Your task to perform on an android device: Go to internet settings Image 0: 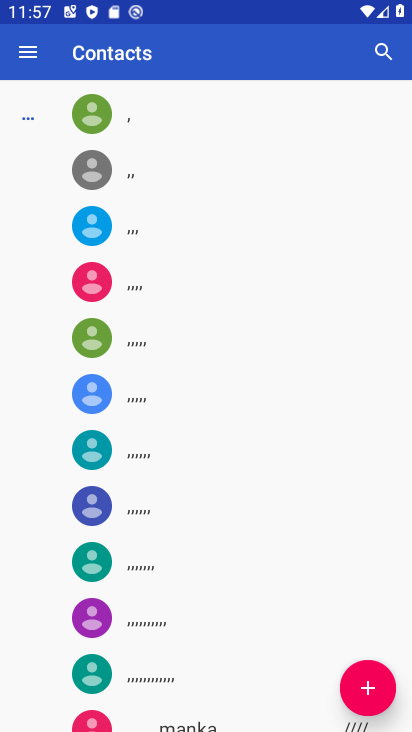
Step 0: press home button
Your task to perform on an android device: Go to internet settings Image 1: 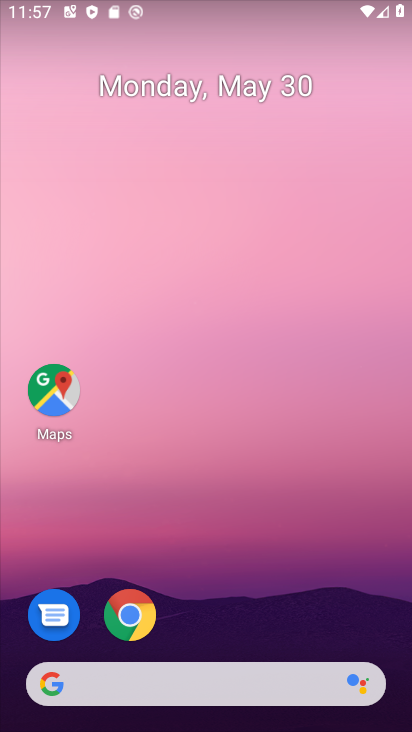
Step 1: drag from (362, 620) to (367, 169)
Your task to perform on an android device: Go to internet settings Image 2: 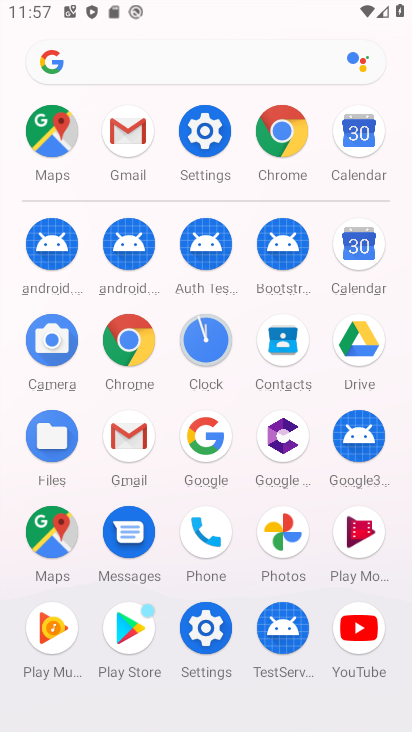
Step 2: click (225, 625)
Your task to perform on an android device: Go to internet settings Image 3: 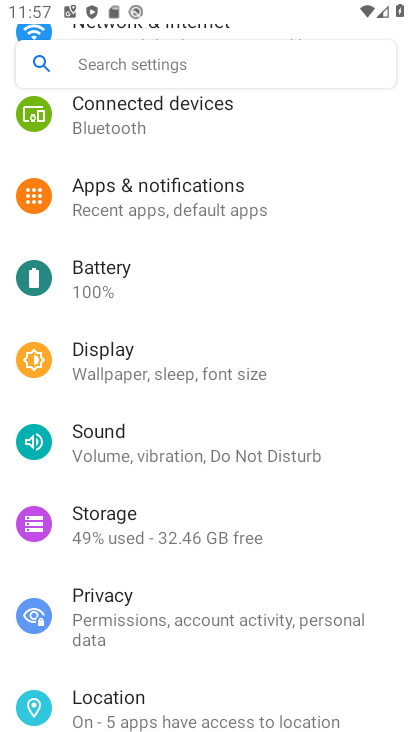
Step 3: drag from (331, 611) to (332, 502)
Your task to perform on an android device: Go to internet settings Image 4: 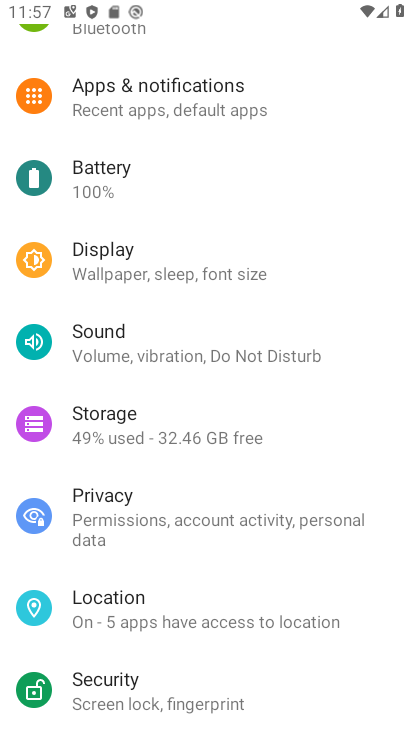
Step 4: drag from (364, 621) to (367, 452)
Your task to perform on an android device: Go to internet settings Image 5: 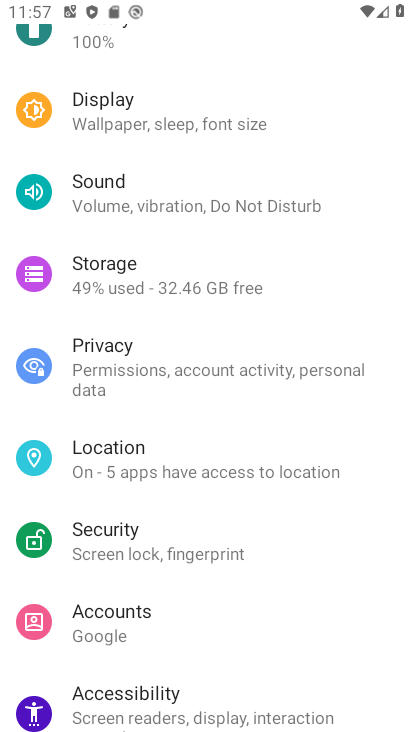
Step 5: drag from (363, 608) to (366, 414)
Your task to perform on an android device: Go to internet settings Image 6: 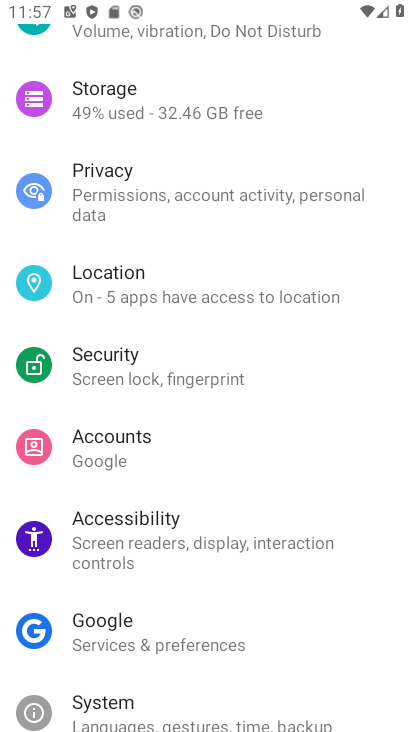
Step 6: drag from (369, 624) to (368, 465)
Your task to perform on an android device: Go to internet settings Image 7: 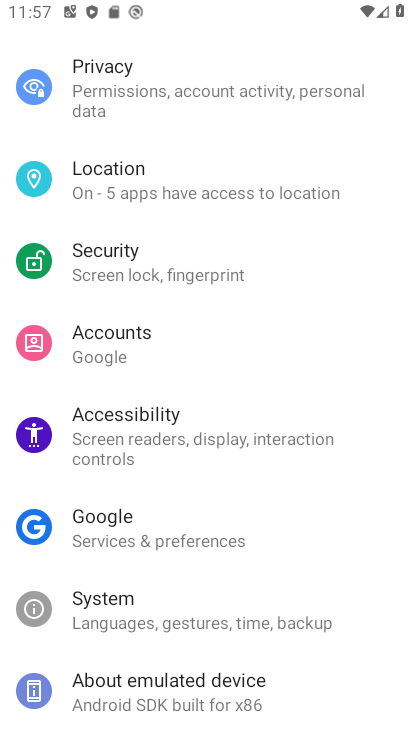
Step 7: drag from (362, 338) to (352, 502)
Your task to perform on an android device: Go to internet settings Image 8: 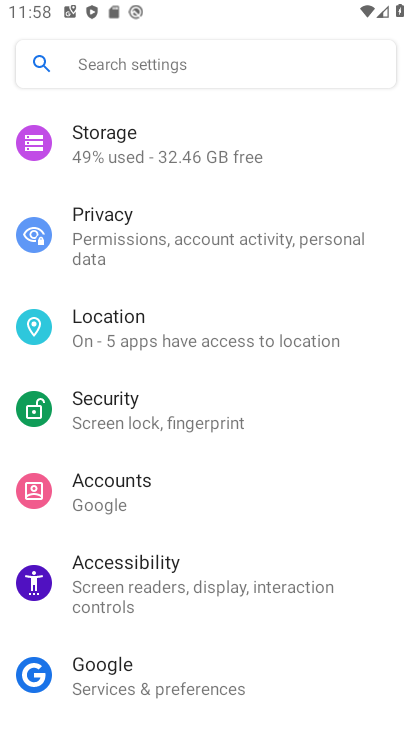
Step 8: drag from (350, 310) to (349, 464)
Your task to perform on an android device: Go to internet settings Image 9: 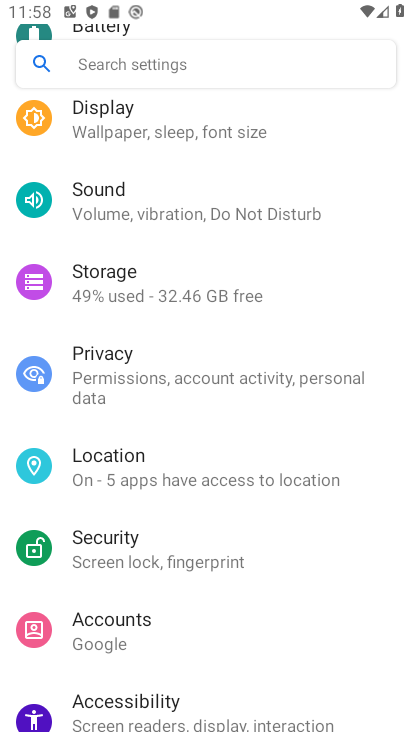
Step 9: drag from (348, 289) to (347, 405)
Your task to perform on an android device: Go to internet settings Image 10: 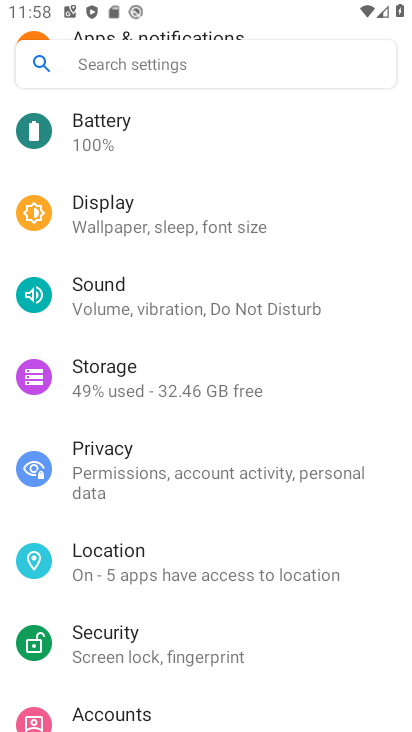
Step 10: drag from (358, 256) to (362, 362)
Your task to perform on an android device: Go to internet settings Image 11: 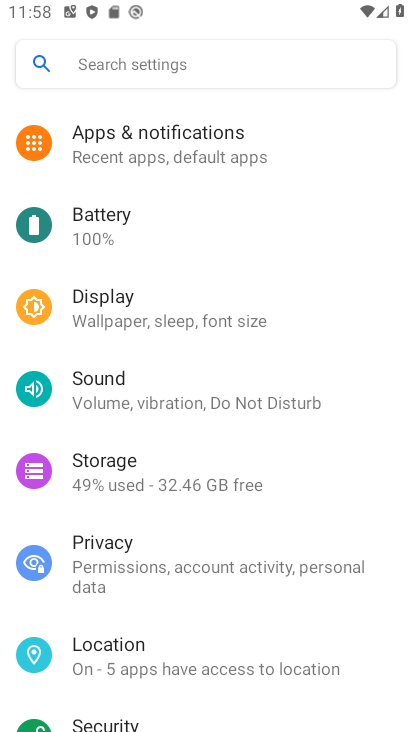
Step 11: drag from (340, 227) to (347, 333)
Your task to perform on an android device: Go to internet settings Image 12: 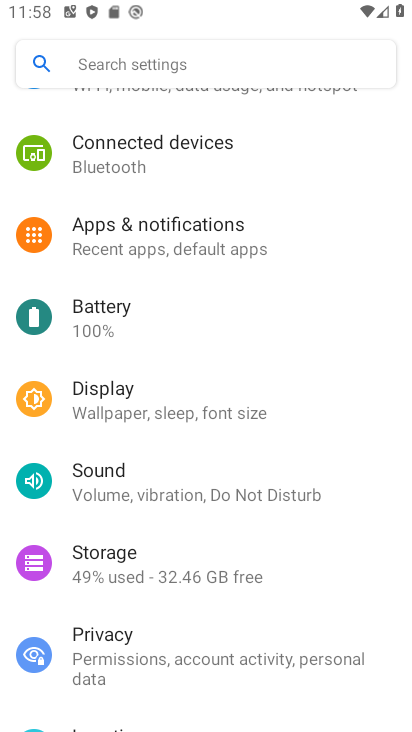
Step 12: drag from (359, 216) to (361, 368)
Your task to perform on an android device: Go to internet settings Image 13: 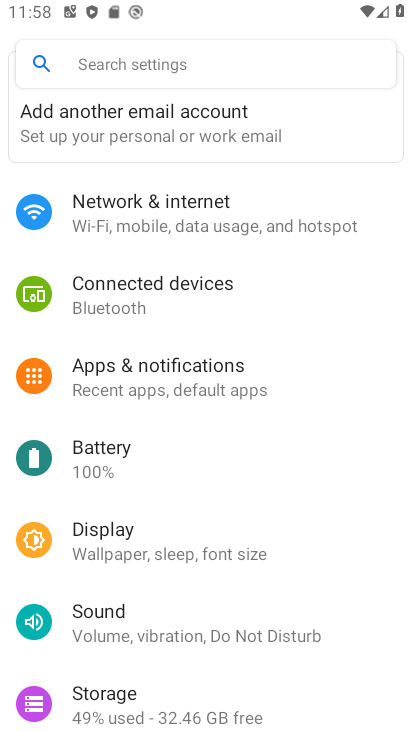
Step 13: click (307, 224)
Your task to perform on an android device: Go to internet settings Image 14: 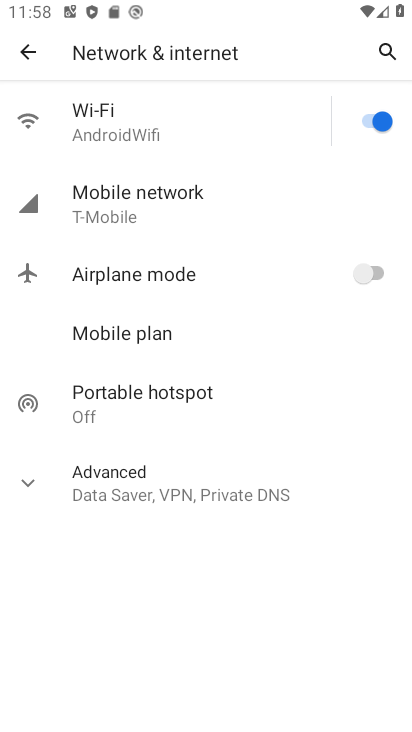
Step 14: task complete